Your task to perform on an android device: turn on showing notifications on the lock screen Image 0: 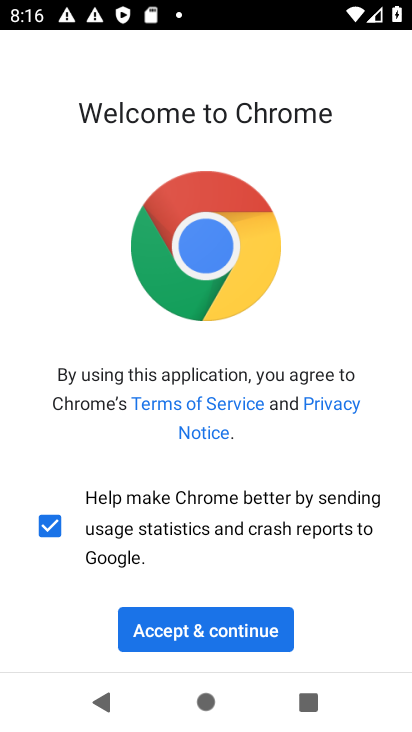
Step 0: press home button
Your task to perform on an android device: turn on showing notifications on the lock screen Image 1: 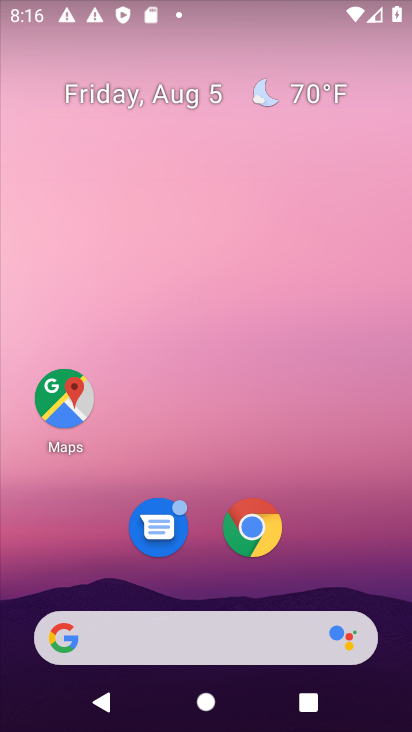
Step 1: drag from (192, 614) to (202, 218)
Your task to perform on an android device: turn on showing notifications on the lock screen Image 2: 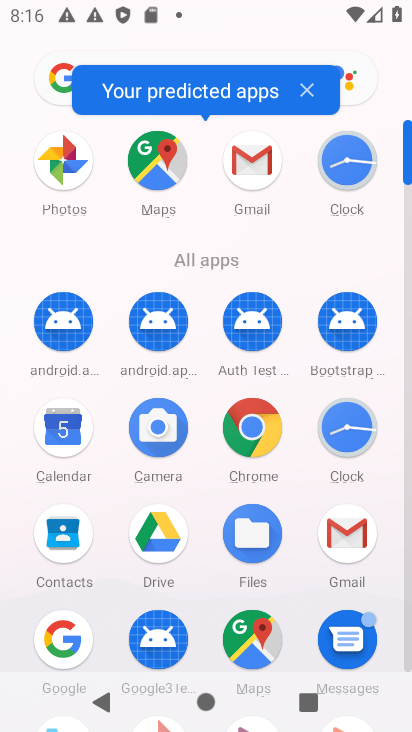
Step 2: drag from (196, 537) to (140, 21)
Your task to perform on an android device: turn on showing notifications on the lock screen Image 3: 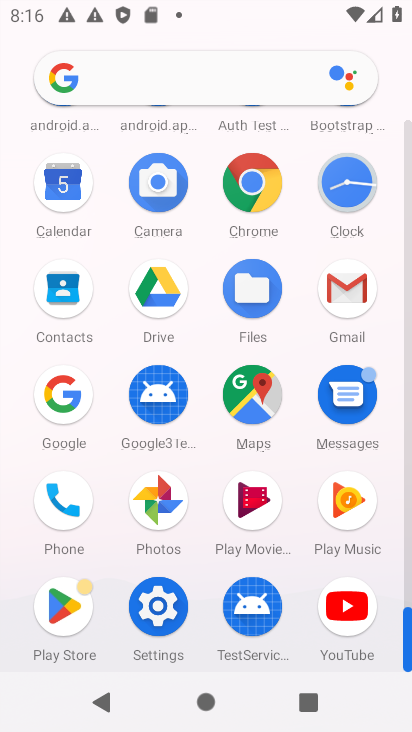
Step 3: click (164, 599)
Your task to perform on an android device: turn on showing notifications on the lock screen Image 4: 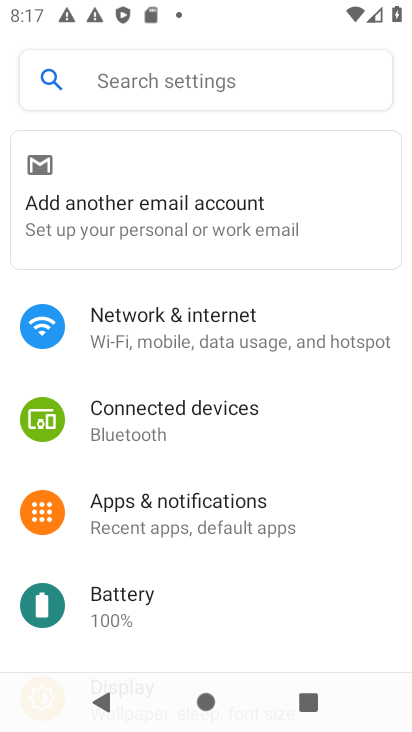
Step 4: drag from (178, 575) to (169, 185)
Your task to perform on an android device: turn on showing notifications on the lock screen Image 5: 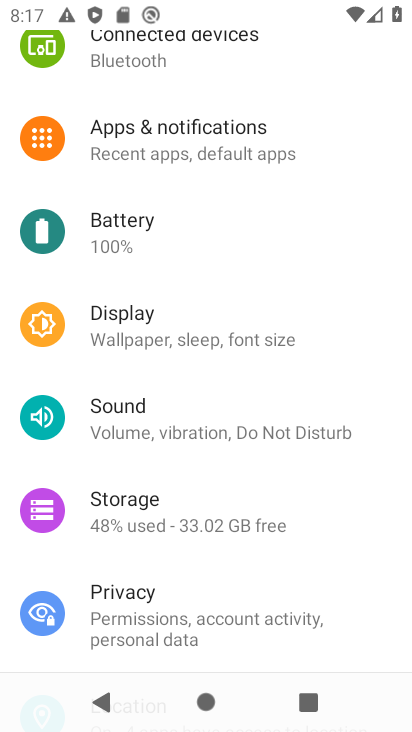
Step 5: click (219, 133)
Your task to perform on an android device: turn on showing notifications on the lock screen Image 6: 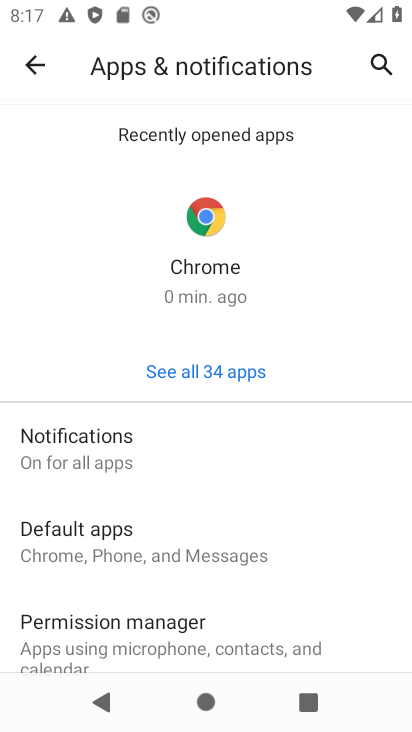
Step 6: click (123, 471)
Your task to perform on an android device: turn on showing notifications on the lock screen Image 7: 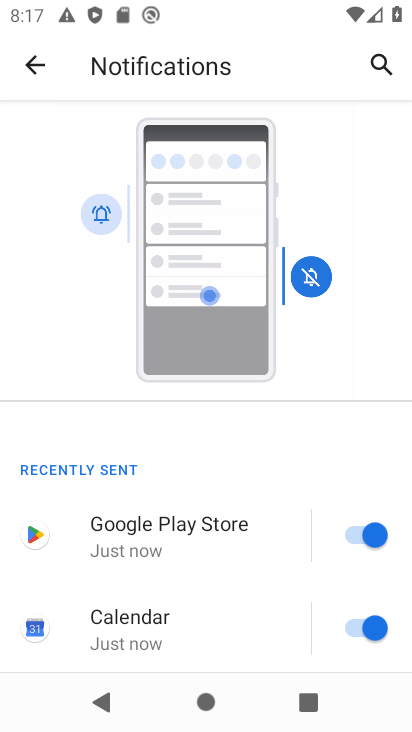
Step 7: drag from (171, 466) to (236, 93)
Your task to perform on an android device: turn on showing notifications on the lock screen Image 8: 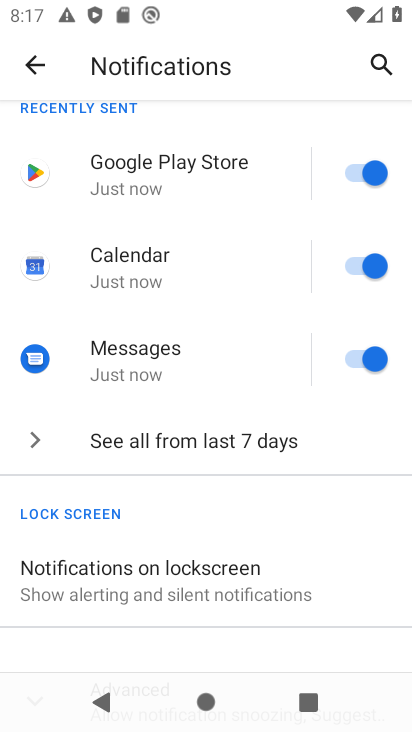
Step 8: click (170, 567)
Your task to perform on an android device: turn on showing notifications on the lock screen Image 9: 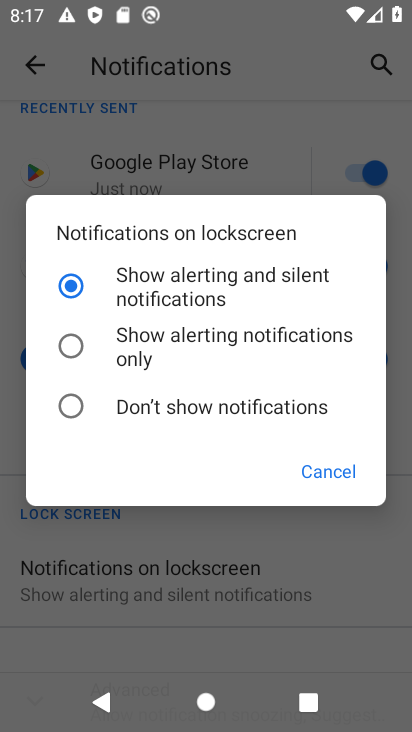
Step 9: click (172, 238)
Your task to perform on an android device: turn on showing notifications on the lock screen Image 10: 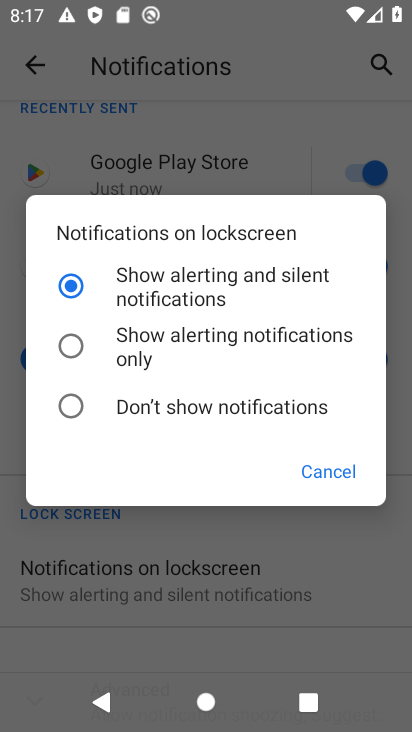
Step 10: click (175, 283)
Your task to perform on an android device: turn on showing notifications on the lock screen Image 11: 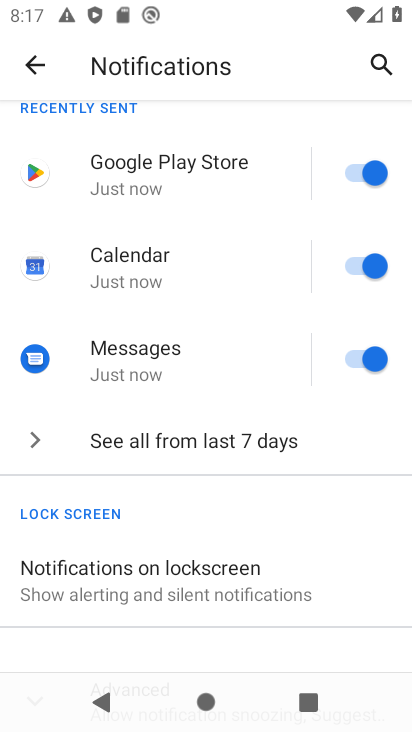
Step 11: task complete